Your task to perform on an android device: snooze an email in the gmail app Image 0: 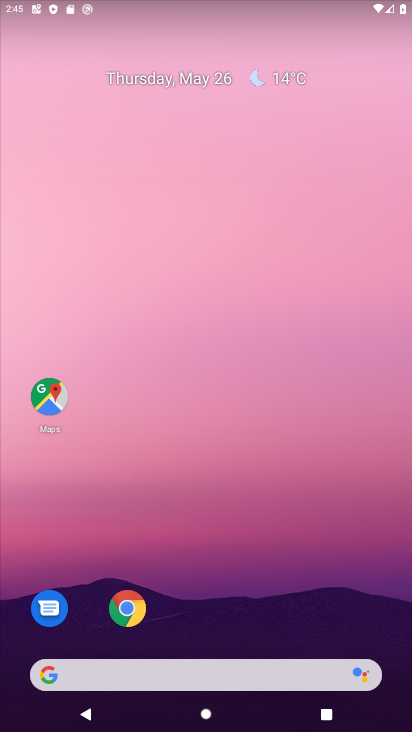
Step 0: drag from (321, 538) to (335, 55)
Your task to perform on an android device: snooze an email in the gmail app Image 1: 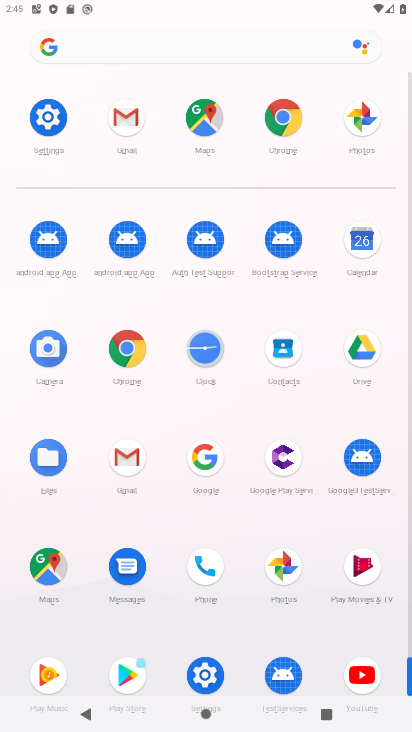
Step 1: click (113, 109)
Your task to perform on an android device: snooze an email in the gmail app Image 2: 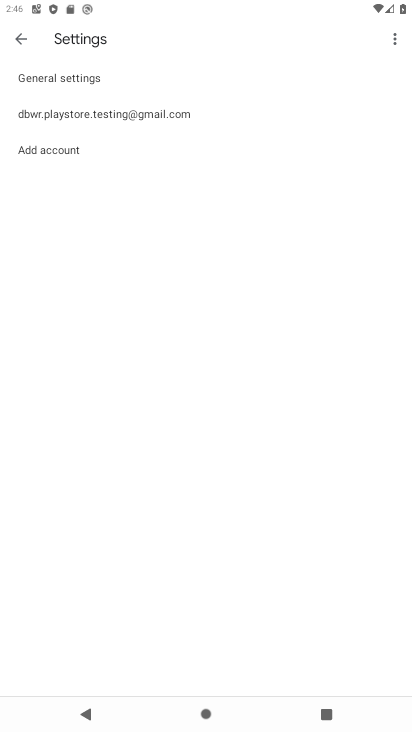
Step 2: click (20, 28)
Your task to perform on an android device: snooze an email in the gmail app Image 3: 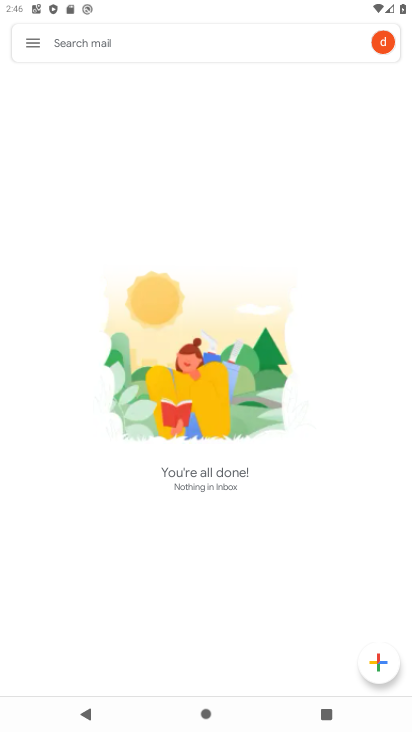
Step 3: task complete